Your task to perform on an android device: Show me recent news Image 0: 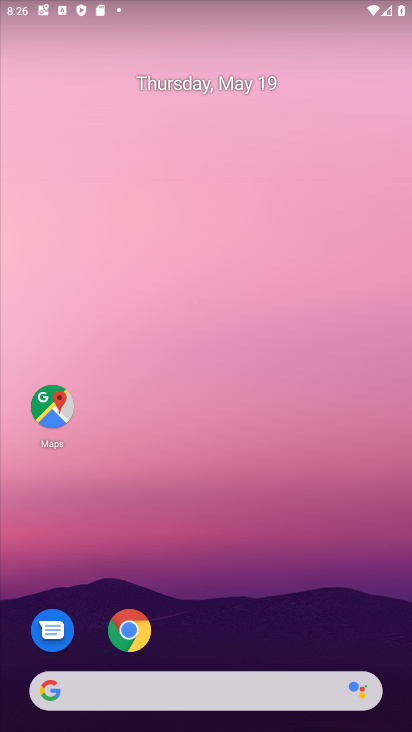
Step 0: drag from (15, 235) to (410, 282)
Your task to perform on an android device: Show me recent news Image 1: 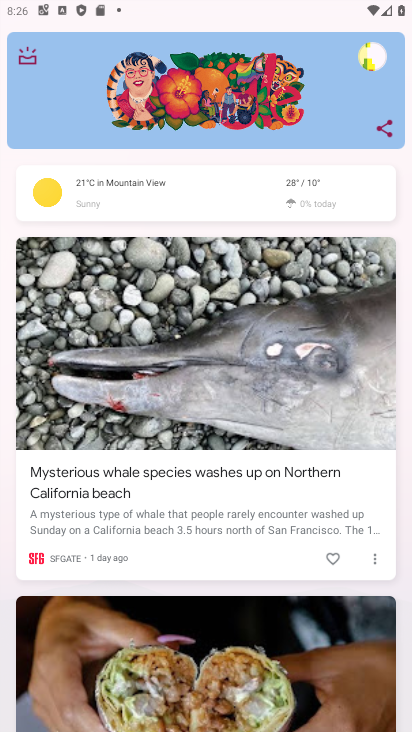
Step 1: task complete